Your task to perform on an android device: refresh tabs in the chrome app Image 0: 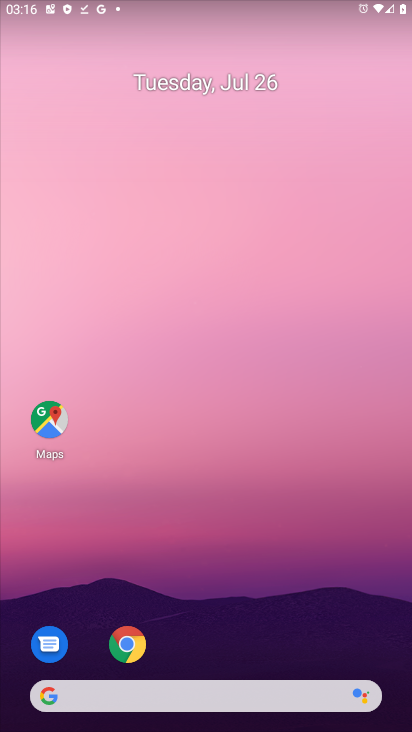
Step 0: drag from (206, 663) to (102, 94)
Your task to perform on an android device: refresh tabs in the chrome app Image 1: 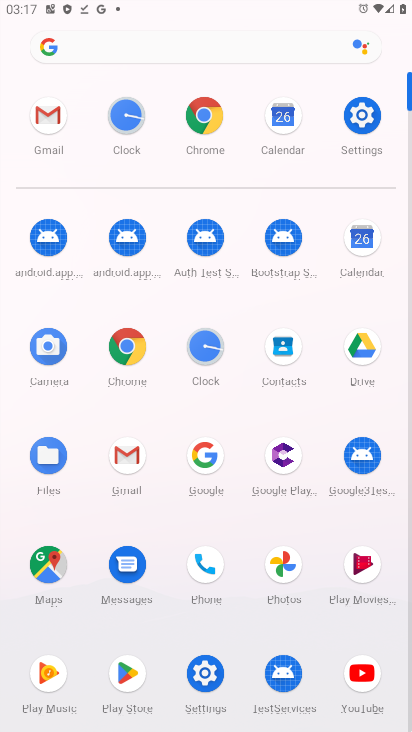
Step 1: click (125, 352)
Your task to perform on an android device: refresh tabs in the chrome app Image 2: 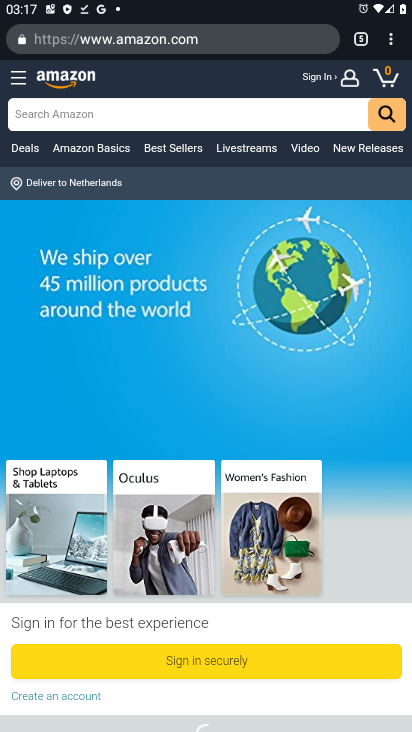
Step 2: click (390, 40)
Your task to perform on an android device: refresh tabs in the chrome app Image 3: 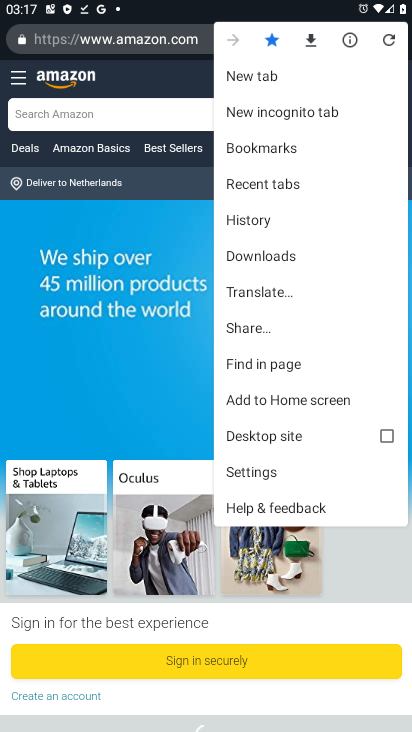
Step 3: click (389, 40)
Your task to perform on an android device: refresh tabs in the chrome app Image 4: 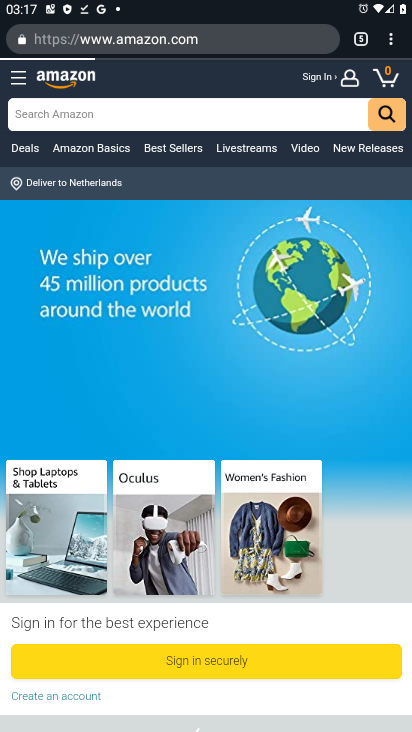
Step 4: task complete